Your task to perform on an android device: Open accessibility settings Image 0: 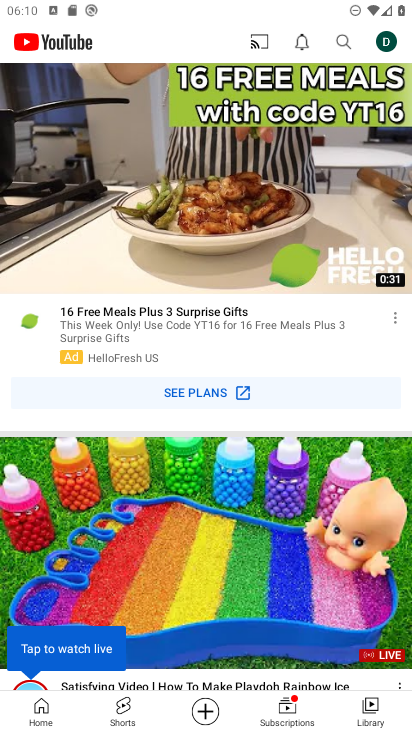
Step 0: press home button
Your task to perform on an android device: Open accessibility settings Image 1: 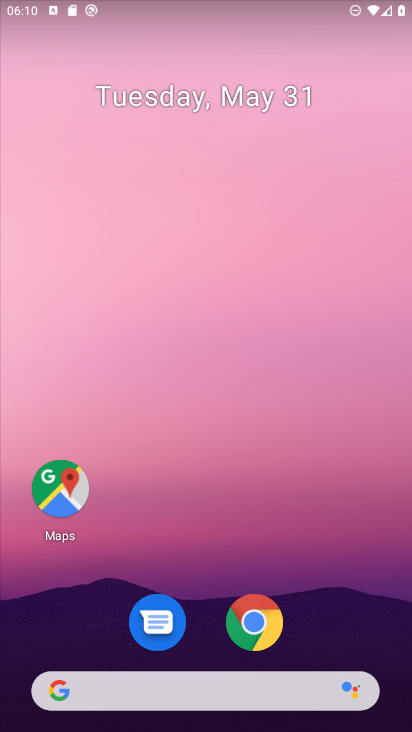
Step 1: drag from (313, 684) to (289, 66)
Your task to perform on an android device: Open accessibility settings Image 2: 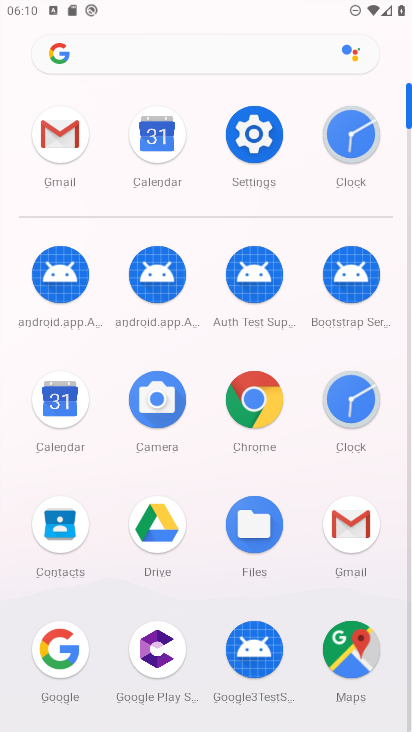
Step 2: click (260, 133)
Your task to perform on an android device: Open accessibility settings Image 3: 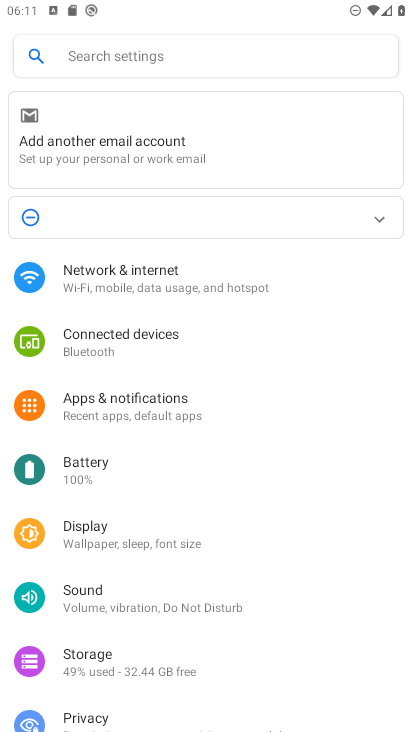
Step 3: drag from (152, 691) to (179, 143)
Your task to perform on an android device: Open accessibility settings Image 4: 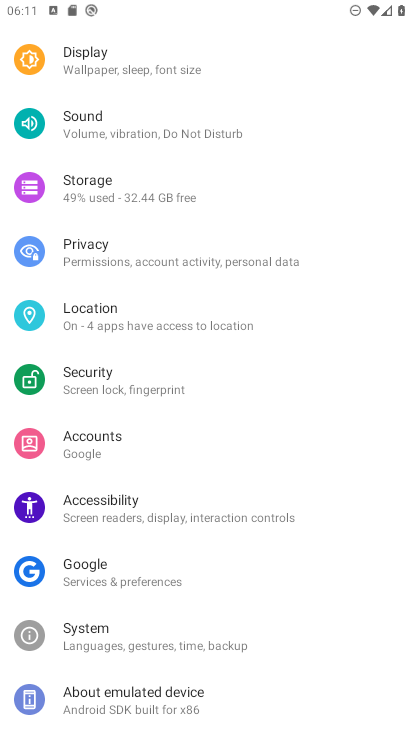
Step 4: click (162, 498)
Your task to perform on an android device: Open accessibility settings Image 5: 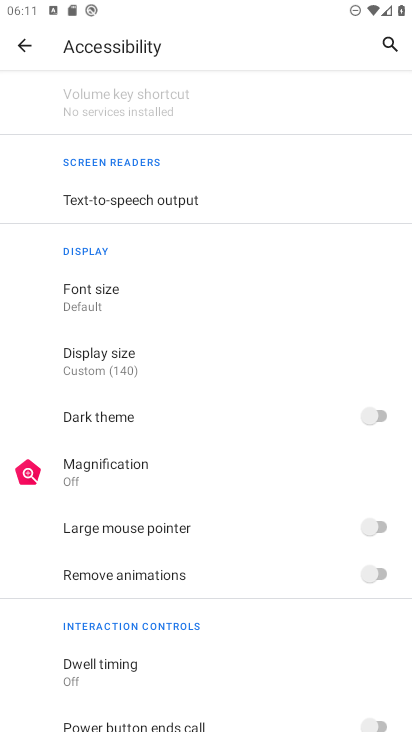
Step 5: task complete